Your task to perform on an android device: turn vacation reply on in the gmail app Image 0: 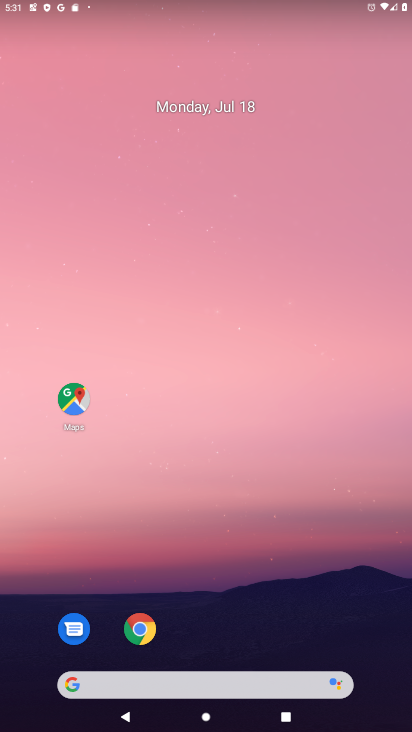
Step 0: drag from (247, 607) to (220, 52)
Your task to perform on an android device: turn vacation reply on in the gmail app Image 1: 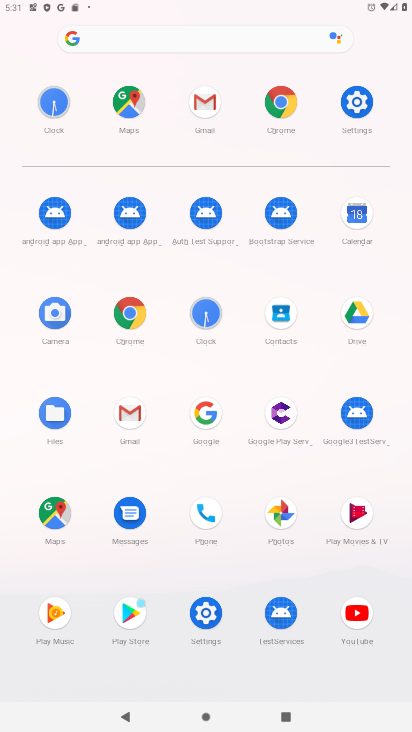
Step 1: click (203, 99)
Your task to perform on an android device: turn vacation reply on in the gmail app Image 2: 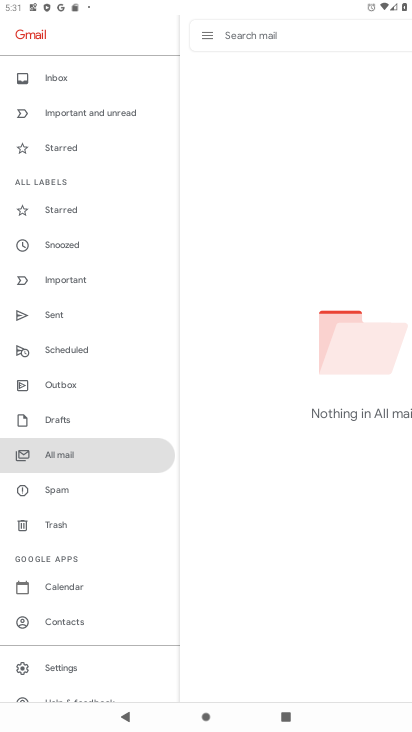
Step 2: click (71, 668)
Your task to perform on an android device: turn vacation reply on in the gmail app Image 3: 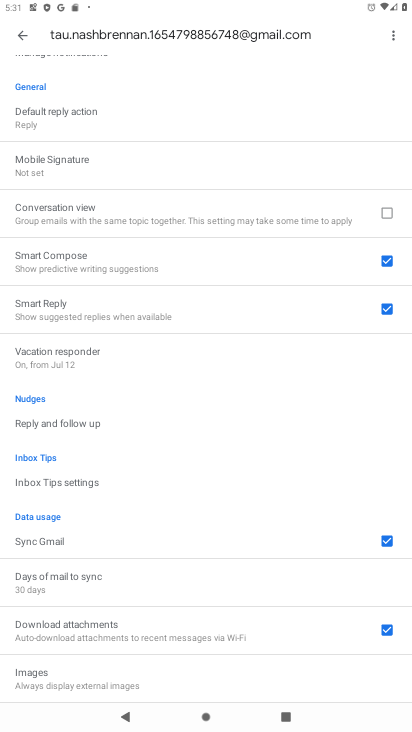
Step 3: drag from (119, 595) to (216, 116)
Your task to perform on an android device: turn vacation reply on in the gmail app Image 4: 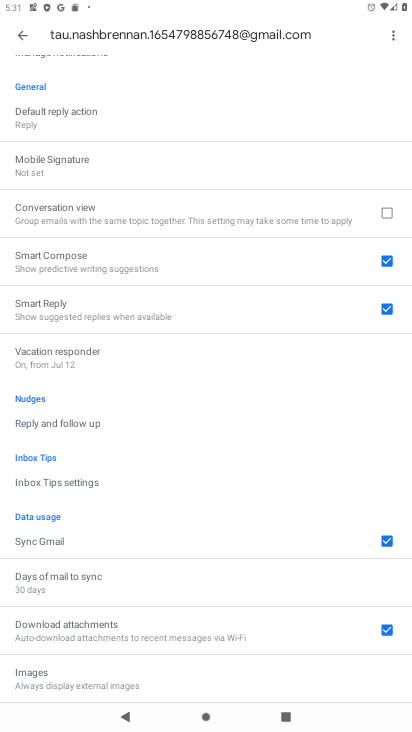
Step 4: drag from (225, 540) to (211, 70)
Your task to perform on an android device: turn vacation reply on in the gmail app Image 5: 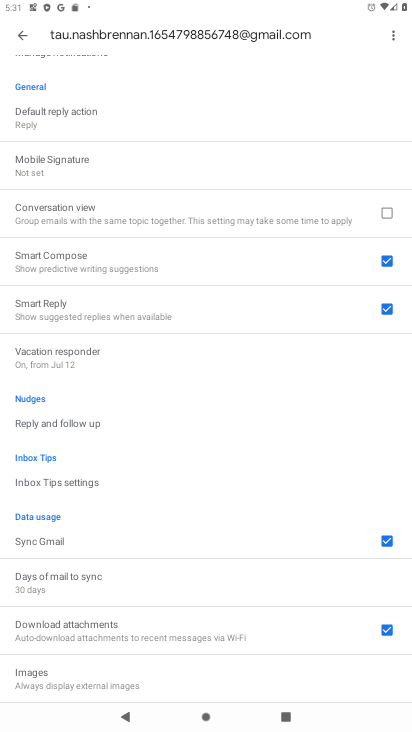
Step 5: click (90, 353)
Your task to perform on an android device: turn vacation reply on in the gmail app Image 6: 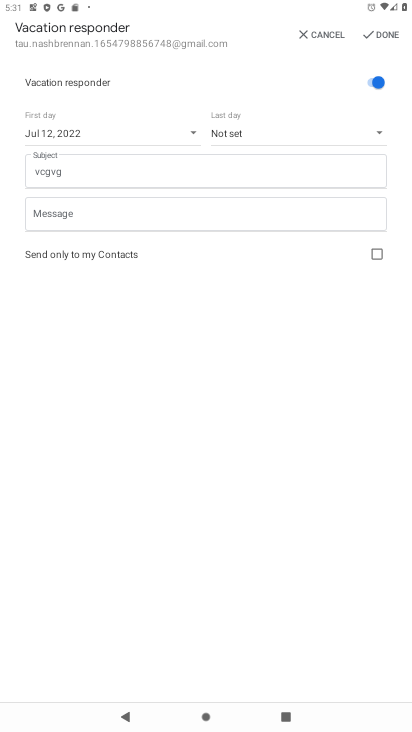
Step 6: task complete